Your task to perform on an android device: View the shopping cart on target.com. Image 0: 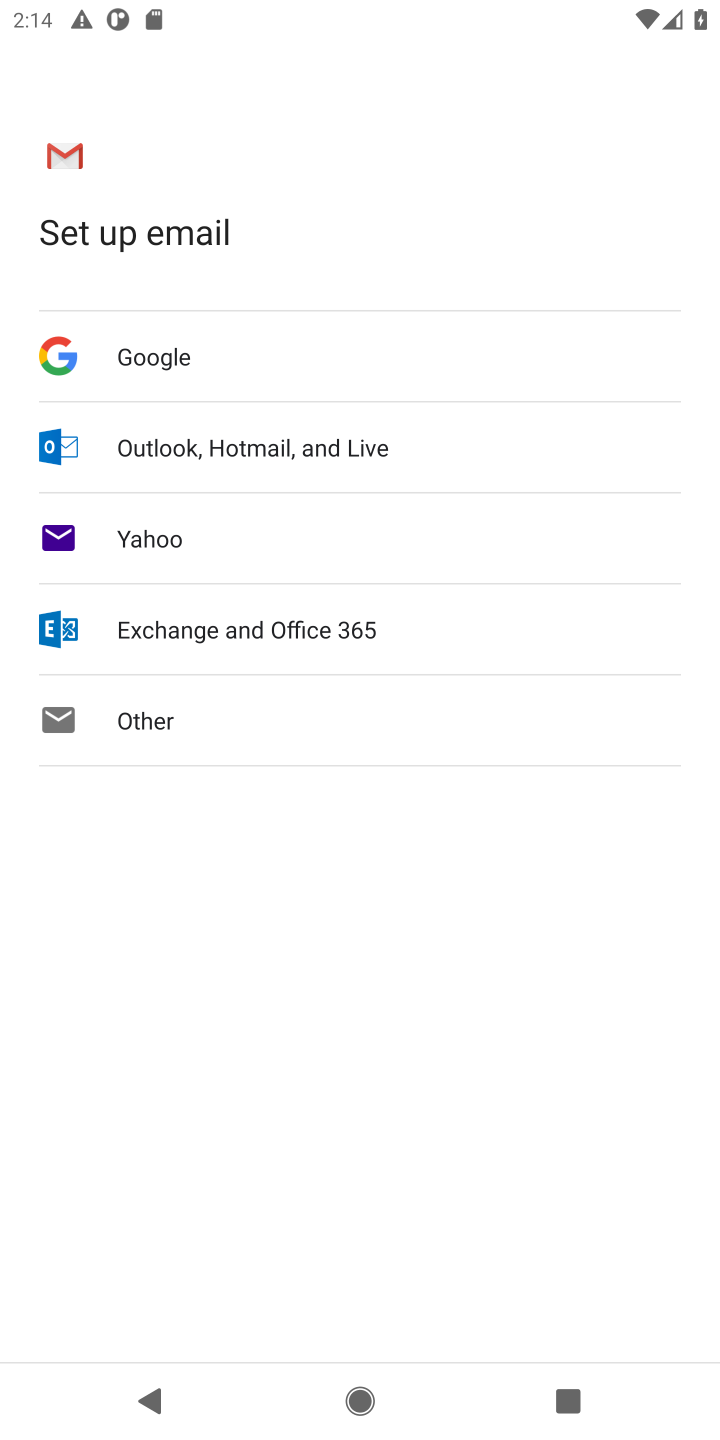
Step 0: press home button
Your task to perform on an android device: View the shopping cart on target.com. Image 1: 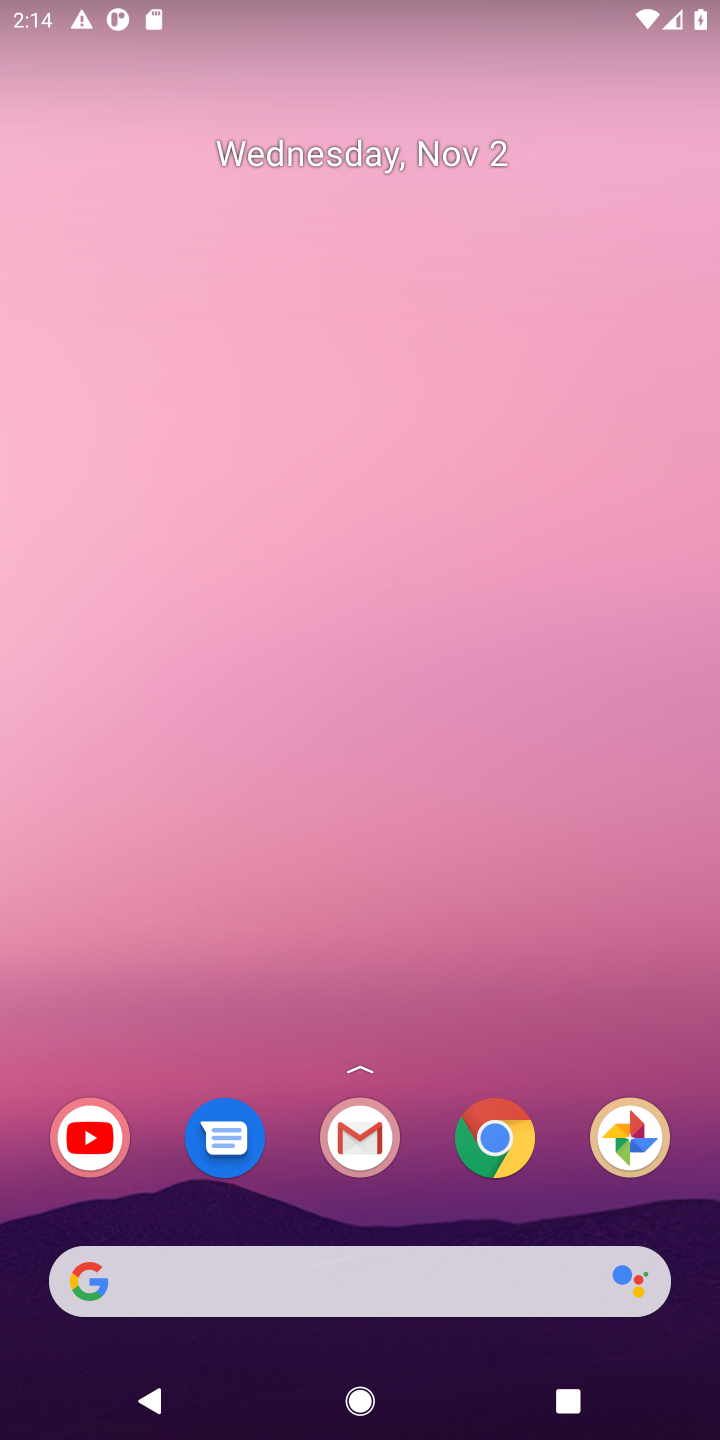
Step 1: click (172, 1263)
Your task to perform on an android device: View the shopping cart on target.com. Image 2: 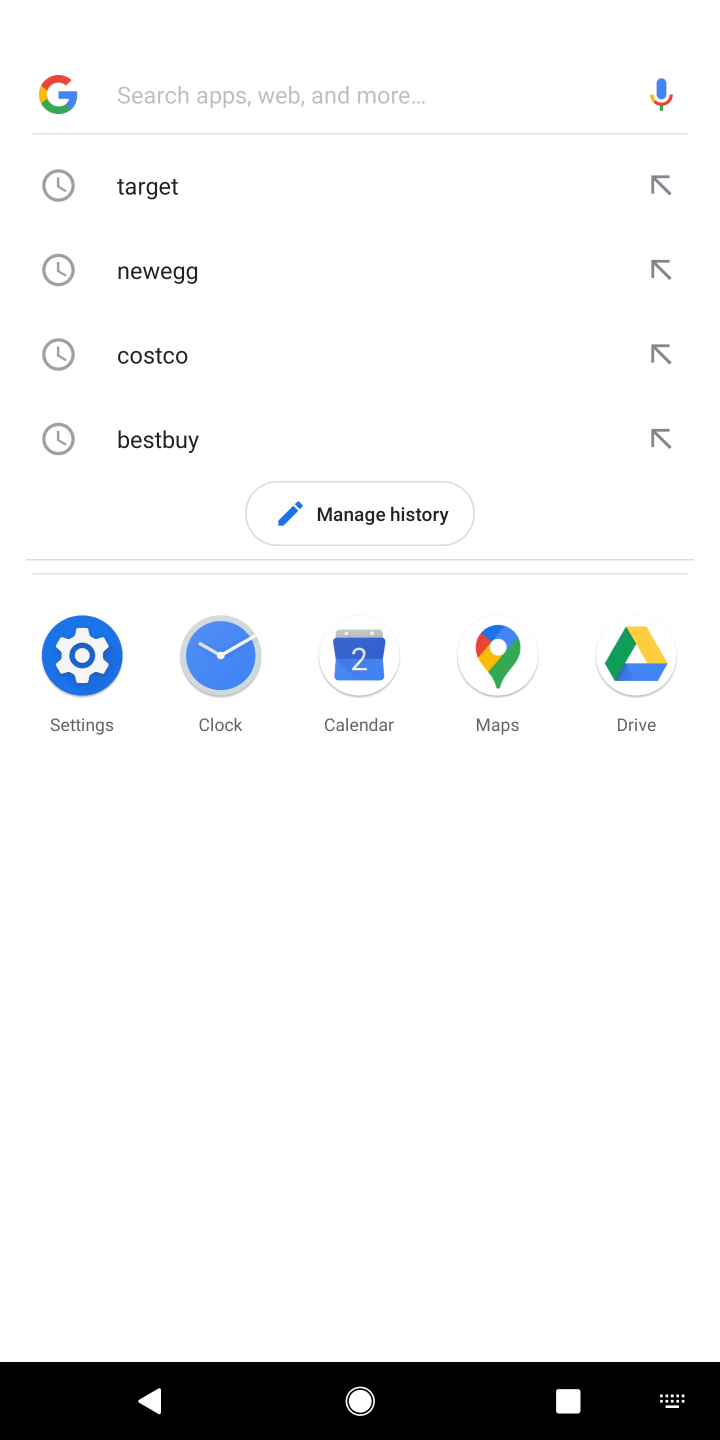
Step 2: press enter
Your task to perform on an android device: View the shopping cart on target.com. Image 3: 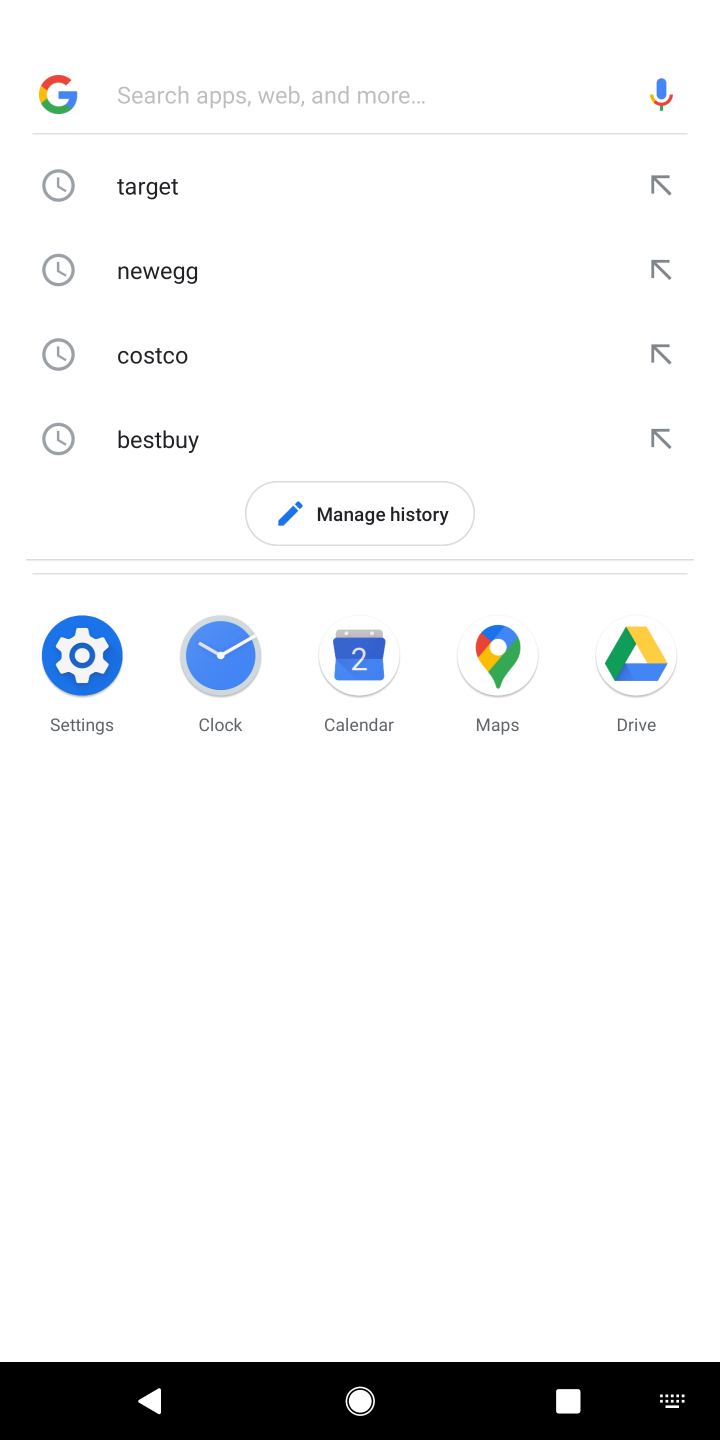
Step 3: type "target.com"
Your task to perform on an android device: View the shopping cart on target.com. Image 4: 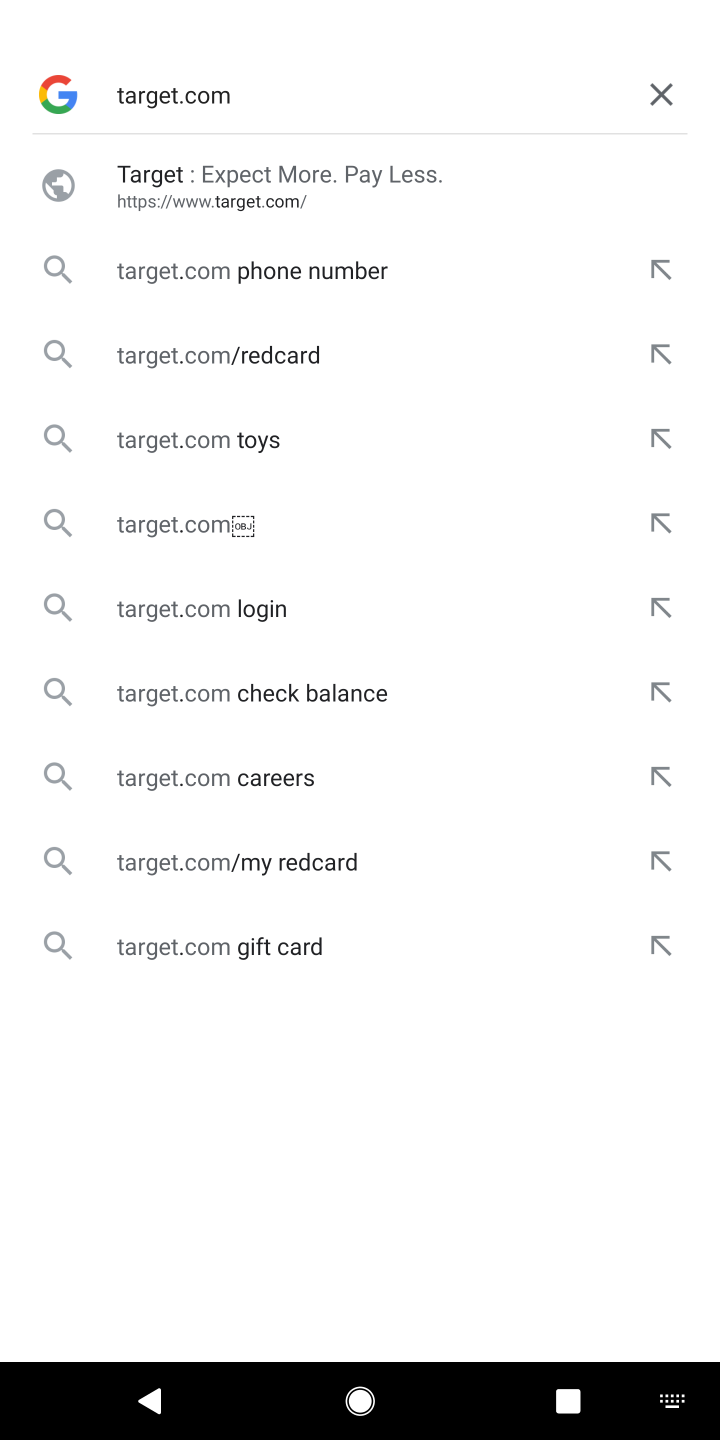
Step 4: press enter
Your task to perform on an android device: View the shopping cart on target.com. Image 5: 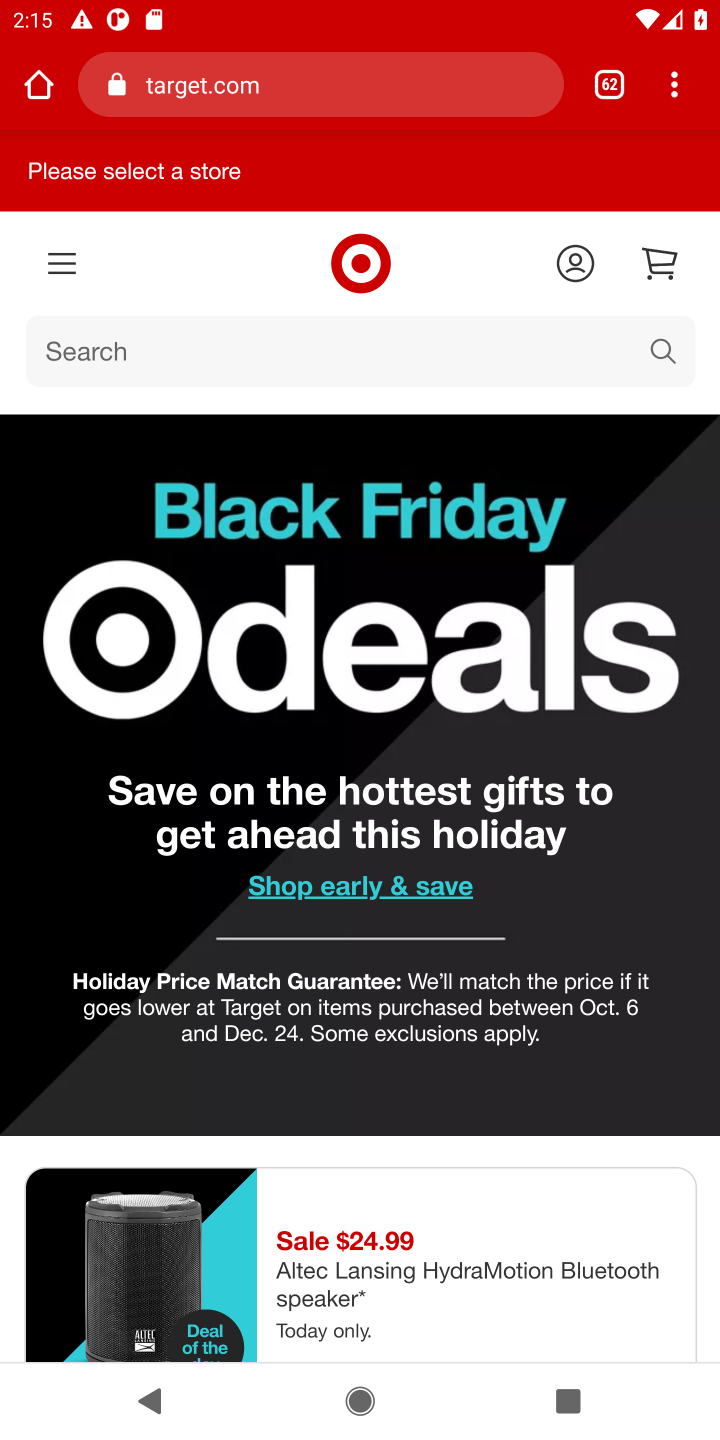
Step 5: click (663, 251)
Your task to perform on an android device: View the shopping cart on target.com. Image 6: 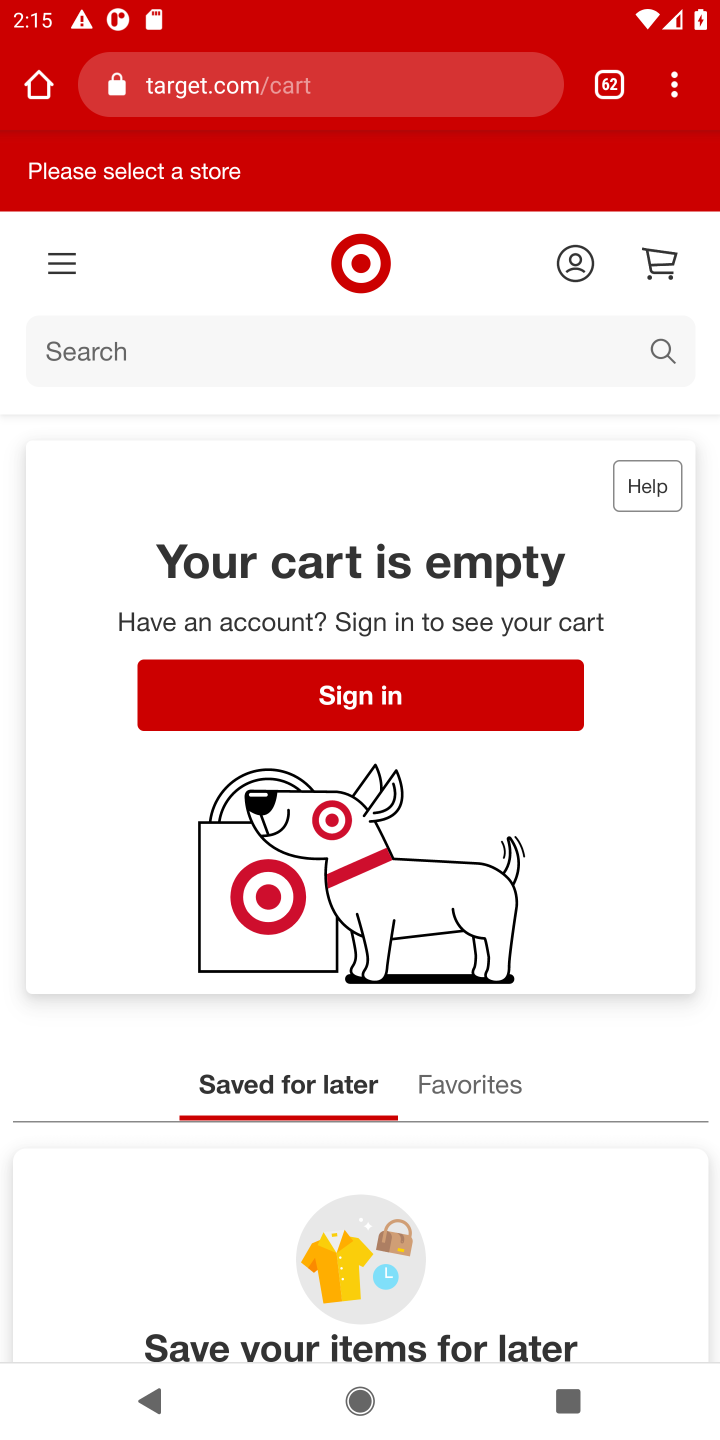
Step 6: task complete